Your task to perform on an android device: Do I have any events tomorrow? Image 0: 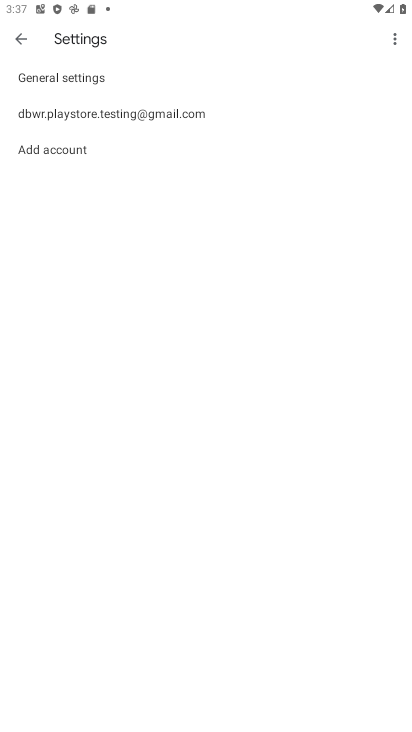
Step 0: press home button
Your task to perform on an android device: Do I have any events tomorrow? Image 1: 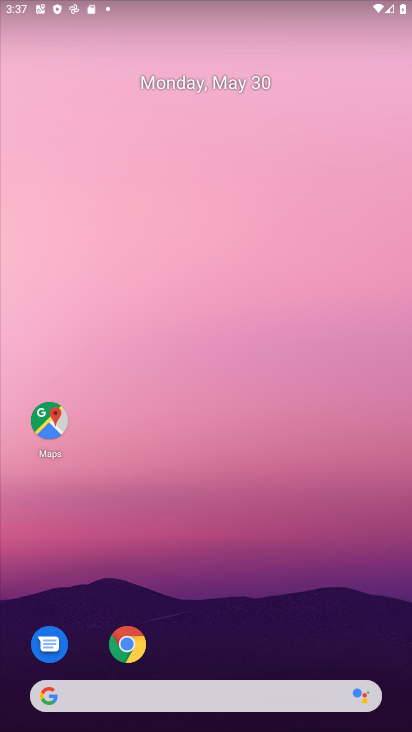
Step 1: drag from (296, 638) to (296, 144)
Your task to perform on an android device: Do I have any events tomorrow? Image 2: 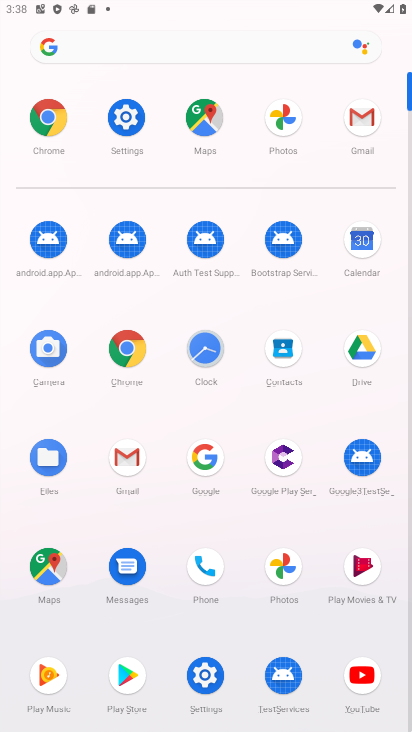
Step 2: click (377, 251)
Your task to perform on an android device: Do I have any events tomorrow? Image 3: 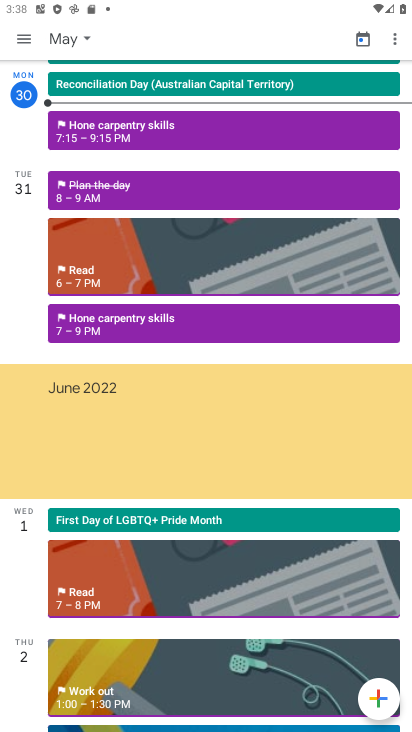
Step 3: task complete